Your task to perform on an android device: Show me popular videos on Youtube Image 0: 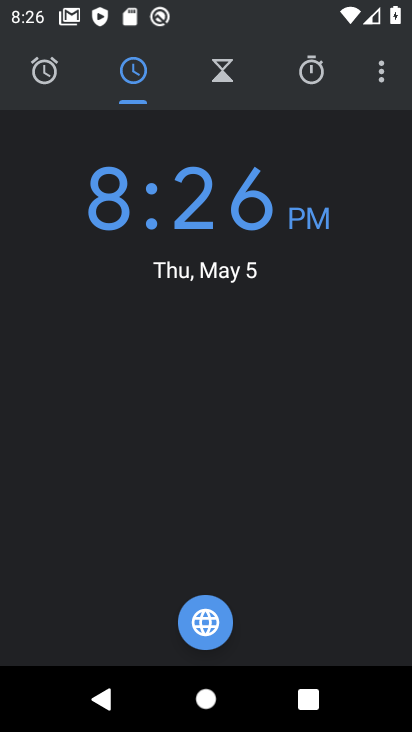
Step 0: press home button
Your task to perform on an android device: Show me popular videos on Youtube Image 1: 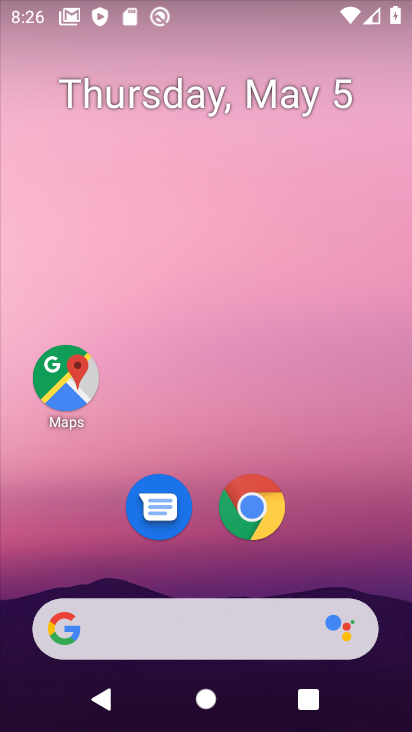
Step 1: drag from (344, 547) to (289, 1)
Your task to perform on an android device: Show me popular videos on Youtube Image 2: 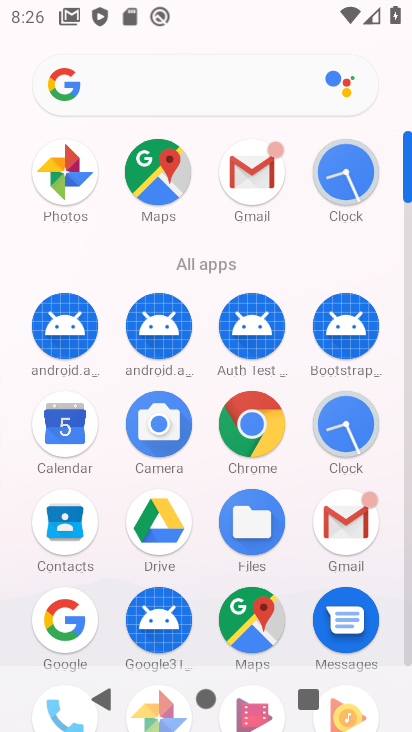
Step 2: drag from (198, 278) to (199, 2)
Your task to perform on an android device: Show me popular videos on Youtube Image 3: 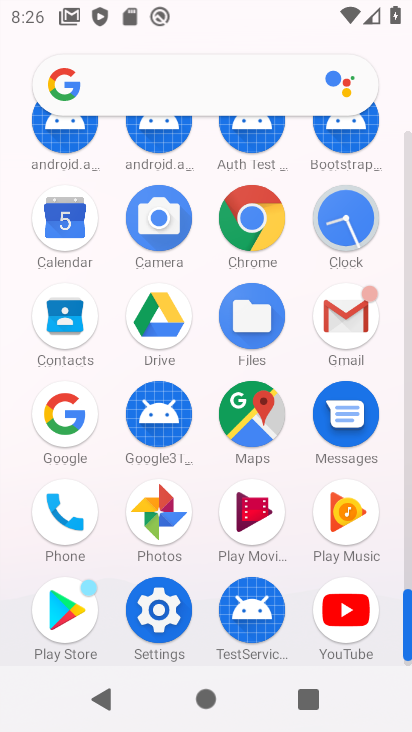
Step 3: click (330, 622)
Your task to perform on an android device: Show me popular videos on Youtube Image 4: 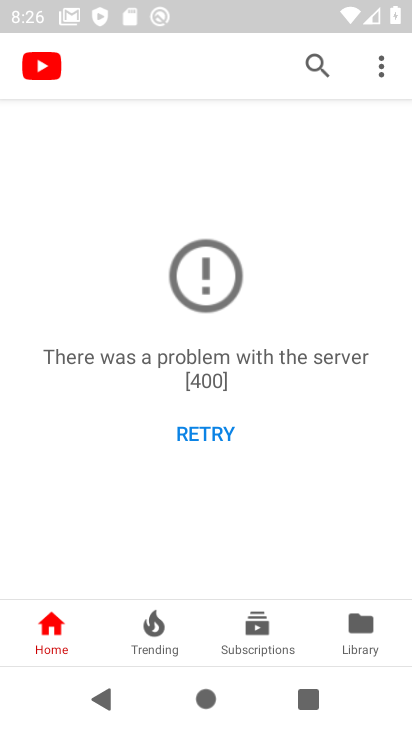
Step 4: click (169, 643)
Your task to perform on an android device: Show me popular videos on Youtube Image 5: 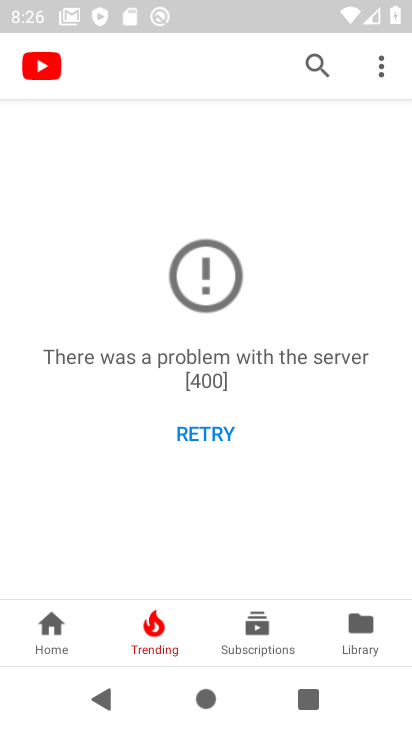
Step 5: click (210, 440)
Your task to perform on an android device: Show me popular videos on Youtube Image 6: 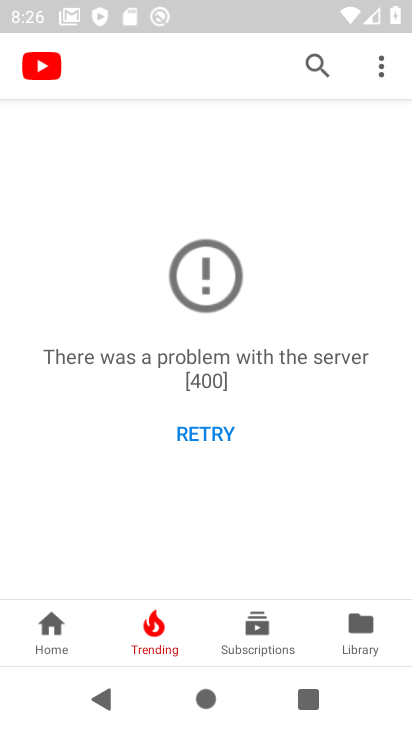
Step 6: click (210, 434)
Your task to perform on an android device: Show me popular videos on Youtube Image 7: 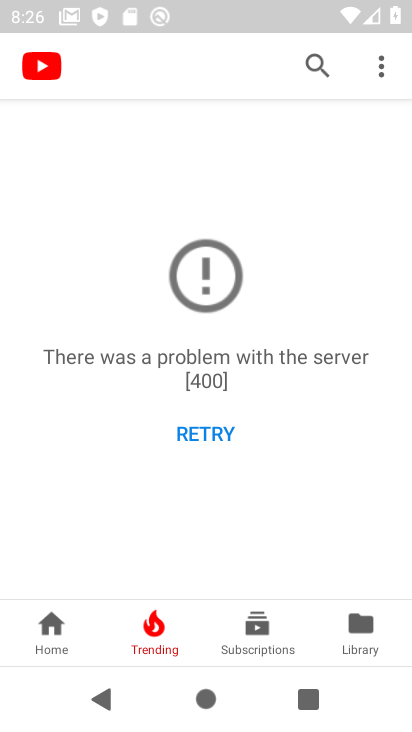
Step 7: task complete